Your task to perform on an android device: Open wifi settings Image 0: 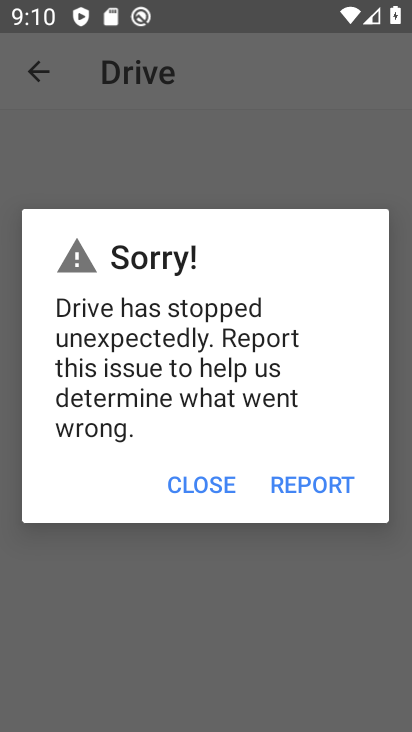
Step 0: press back button
Your task to perform on an android device: Open wifi settings Image 1: 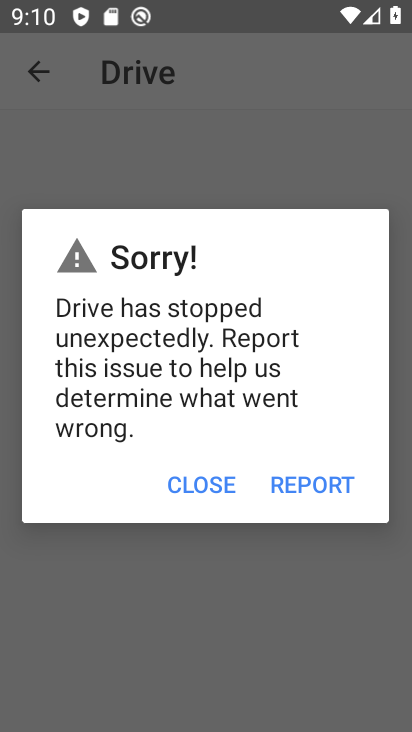
Step 1: click (180, 474)
Your task to perform on an android device: Open wifi settings Image 2: 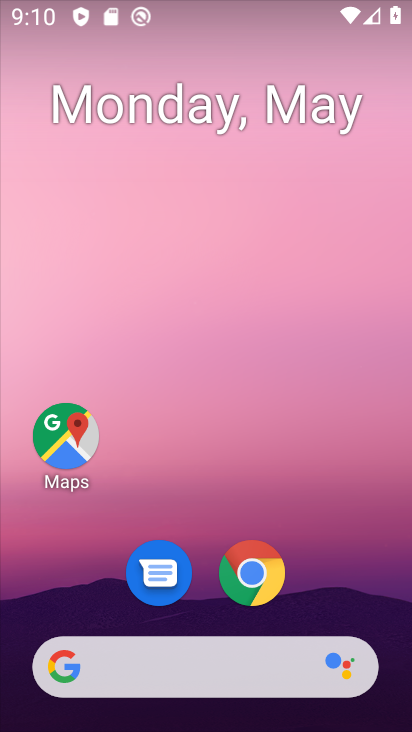
Step 2: drag from (305, 716) to (202, 139)
Your task to perform on an android device: Open wifi settings Image 3: 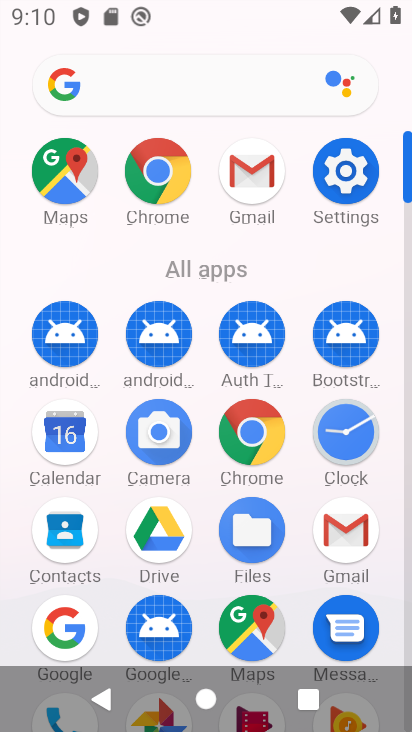
Step 3: click (340, 183)
Your task to perform on an android device: Open wifi settings Image 4: 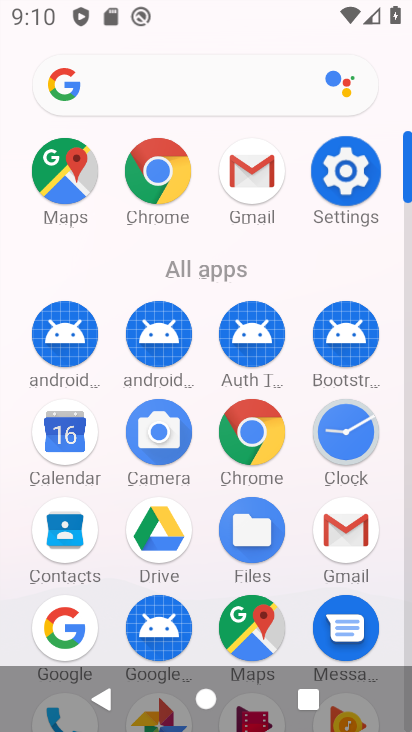
Step 4: click (346, 187)
Your task to perform on an android device: Open wifi settings Image 5: 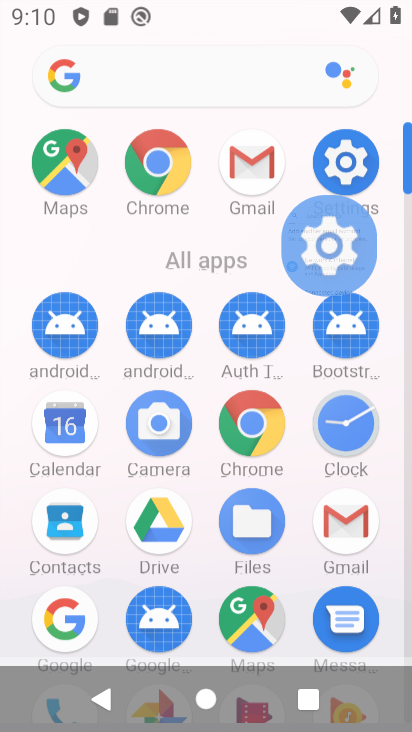
Step 5: click (346, 187)
Your task to perform on an android device: Open wifi settings Image 6: 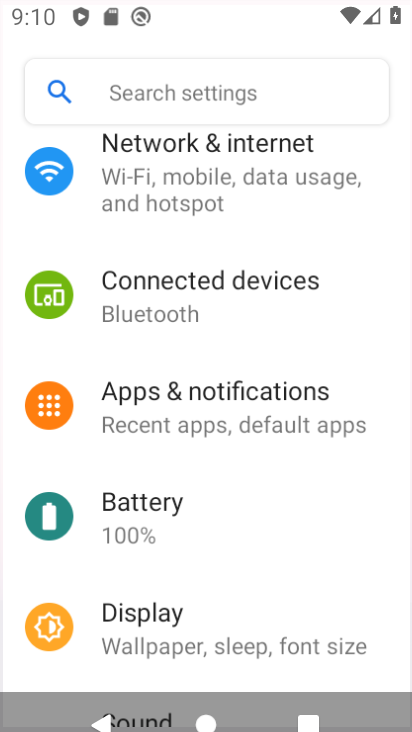
Step 6: click (346, 187)
Your task to perform on an android device: Open wifi settings Image 7: 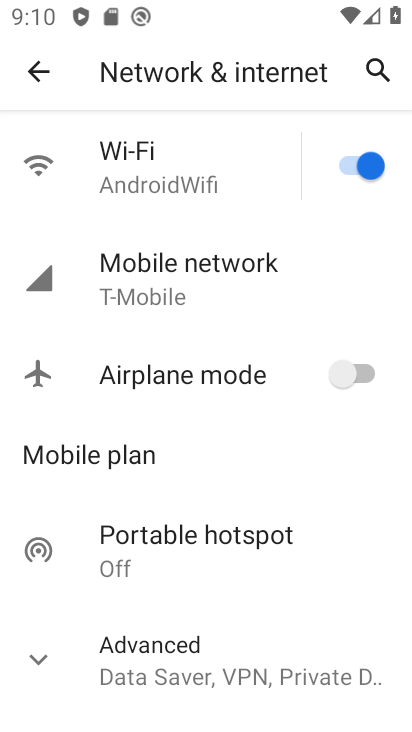
Step 7: task complete